Your task to perform on an android device: Go to sound settings Image 0: 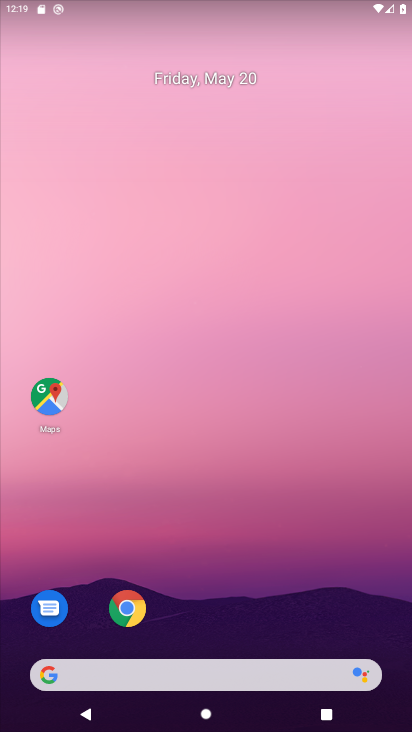
Step 0: press home button
Your task to perform on an android device: Go to sound settings Image 1: 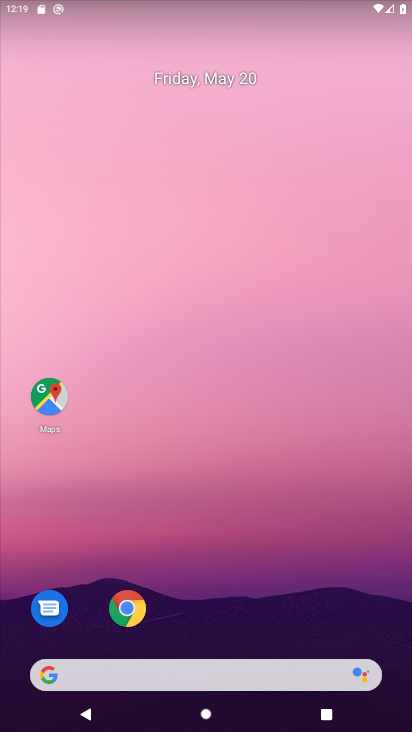
Step 1: drag from (209, 583) to (261, 115)
Your task to perform on an android device: Go to sound settings Image 2: 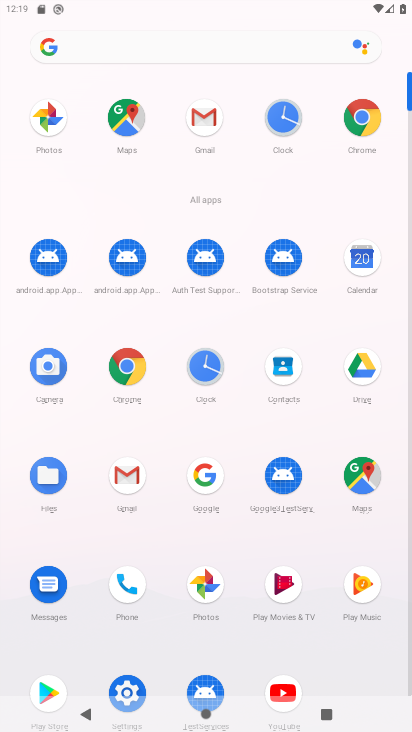
Step 2: click (128, 689)
Your task to perform on an android device: Go to sound settings Image 3: 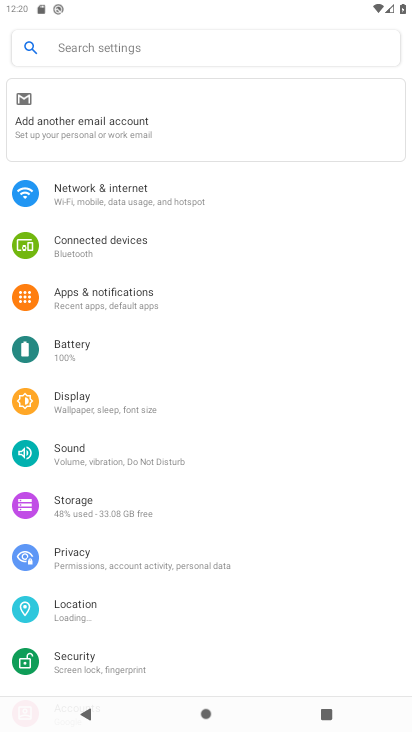
Step 3: click (122, 468)
Your task to perform on an android device: Go to sound settings Image 4: 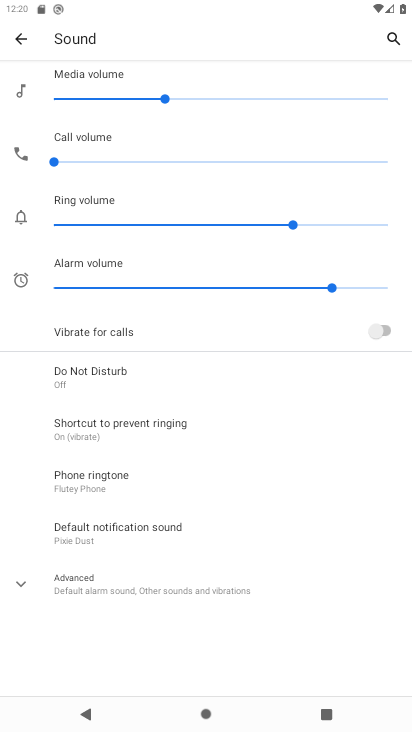
Step 4: task complete